Your task to perform on an android device: open chrome and create a bookmark for the current page Image 0: 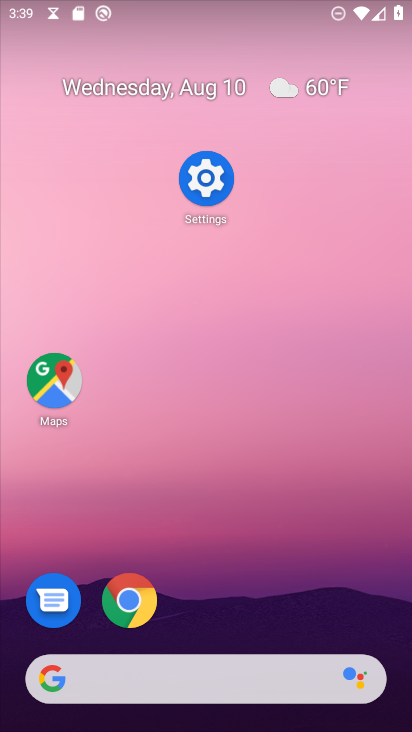
Step 0: click (130, 607)
Your task to perform on an android device: open chrome and create a bookmark for the current page Image 1: 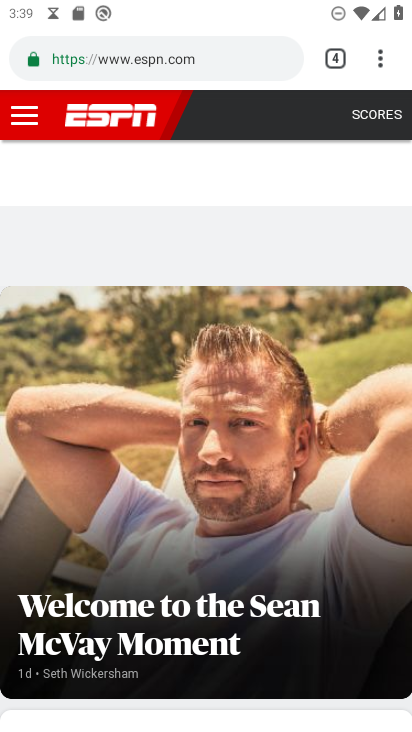
Step 1: task complete